Your task to perform on an android device: Go to Android settings Image 0: 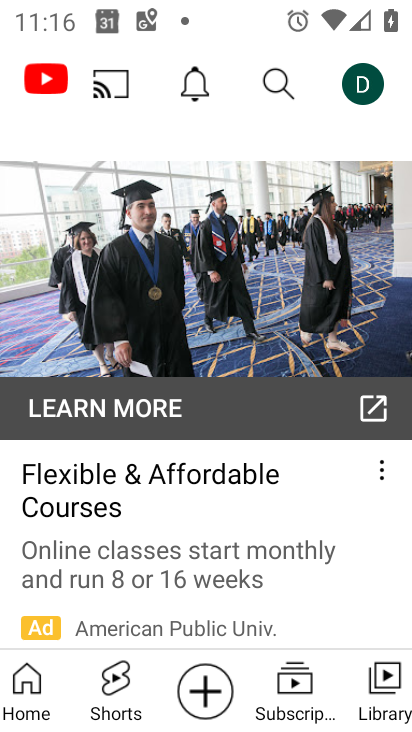
Step 0: press home button
Your task to perform on an android device: Go to Android settings Image 1: 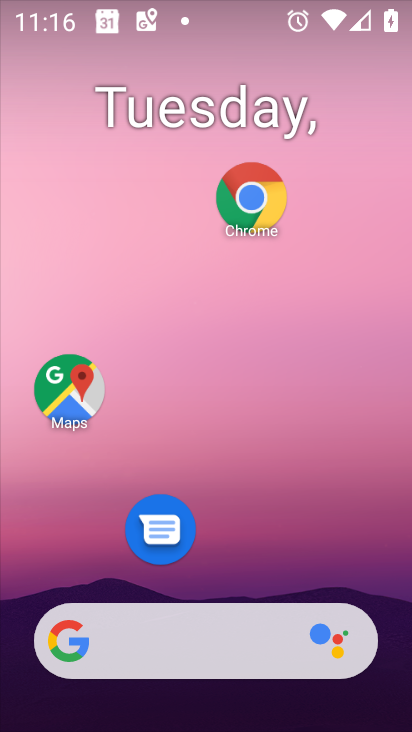
Step 1: drag from (318, 553) to (309, 27)
Your task to perform on an android device: Go to Android settings Image 2: 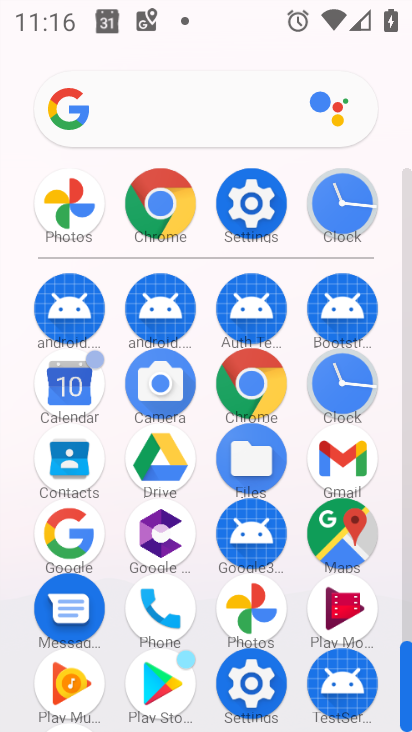
Step 2: click (264, 186)
Your task to perform on an android device: Go to Android settings Image 3: 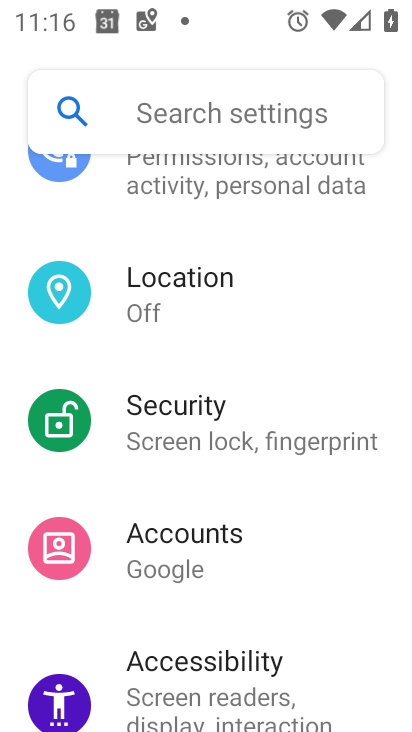
Step 3: task complete